Your task to perform on an android device: What is the news today? Image 0: 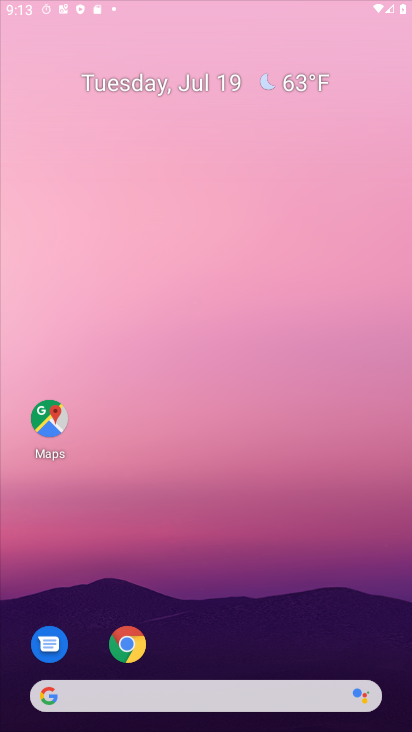
Step 0: click (409, 500)
Your task to perform on an android device: What is the news today? Image 1: 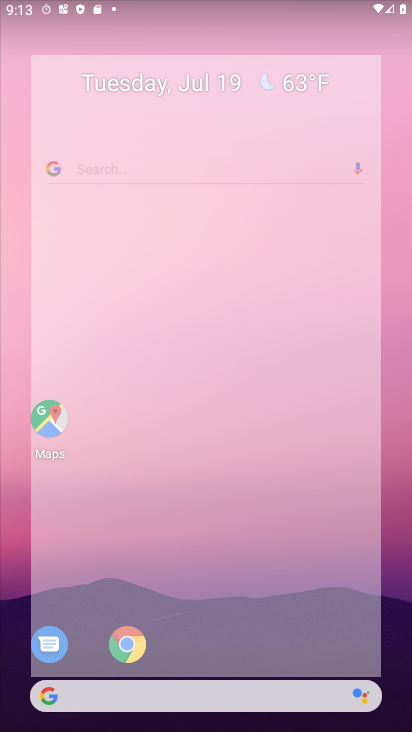
Step 1: drag from (272, 621) to (255, 171)
Your task to perform on an android device: What is the news today? Image 2: 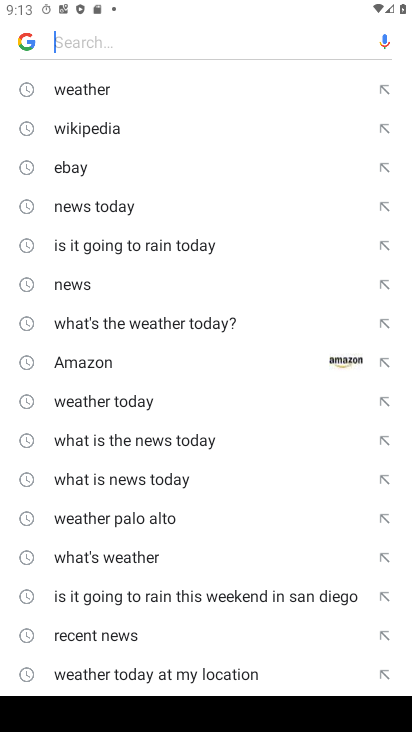
Step 2: press back button
Your task to perform on an android device: What is the news today? Image 3: 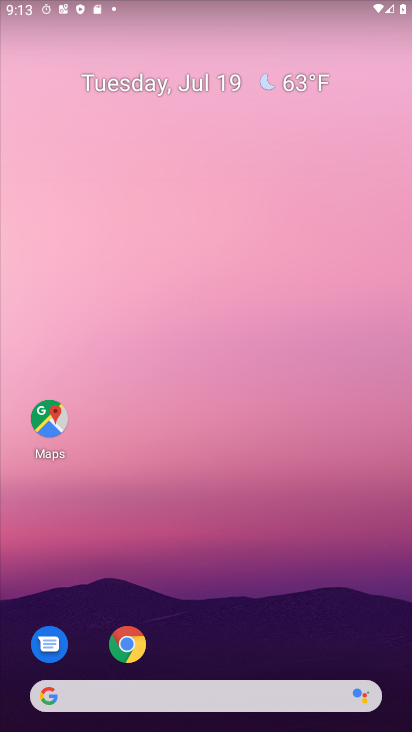
Step 3: drag from (229, 605) to (189, 179)
Your task to perform on an android device: What is the news today? Image 4: 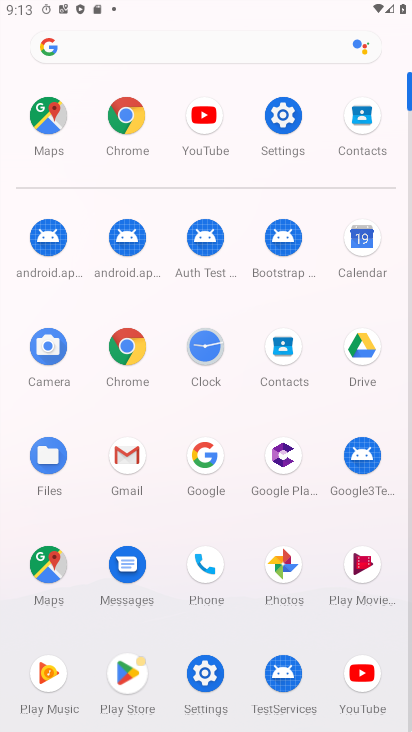
Step 4: click (113, 114)
Your task to perform on an android device: What is the news today? Image 5: 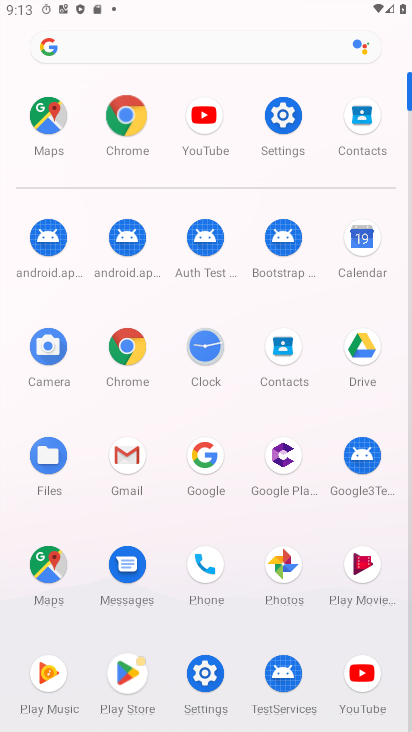
Step 5: click (113, 114)
Your task to perform on an android device: What is the news today? Image 6: 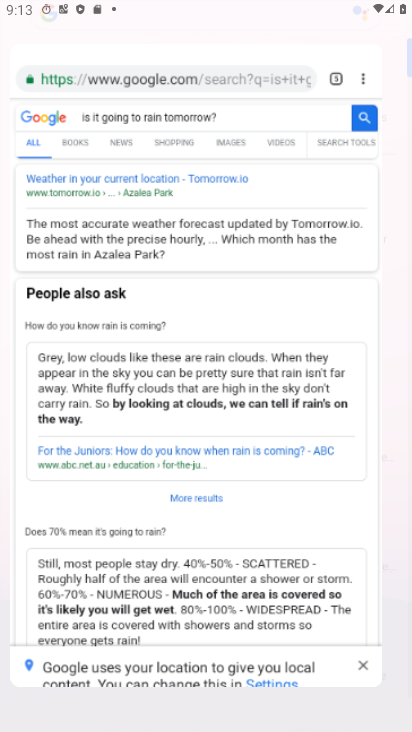
Step 6: click (115, 115)
Your task to perform on an android device: What is the news today? Image 7: 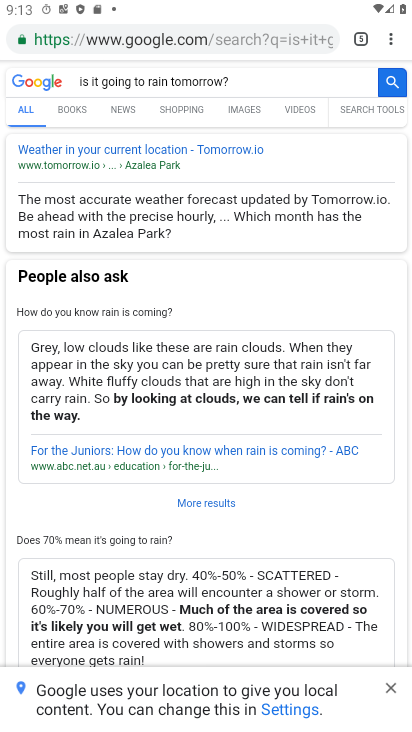
Step 7: task complete